Your task to perform on an android device: empty trash in google photos Image 0: 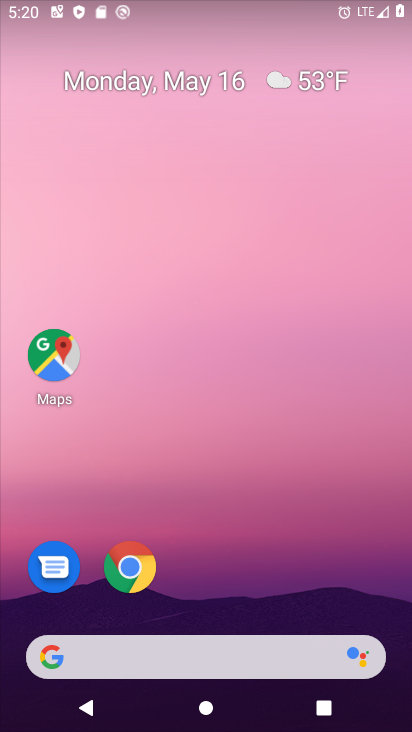
Step 0: drag from (199, 686) to (132, 162)
Your task to perform on an android device: empty trash in google photos Image 1: 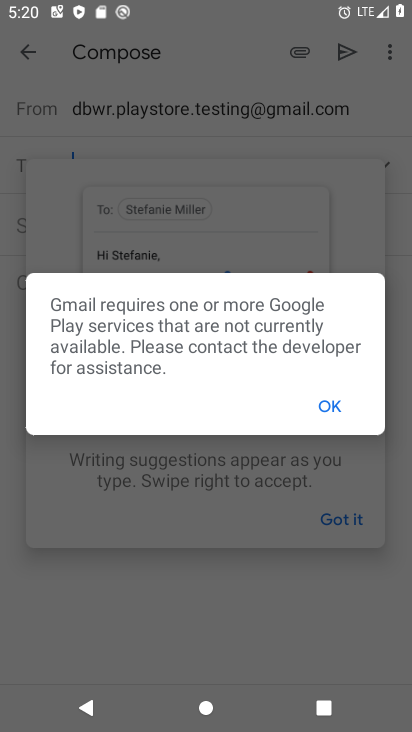
Step 1: press home button
Your task to perform on an android device: empty trash in google photos Image 2: 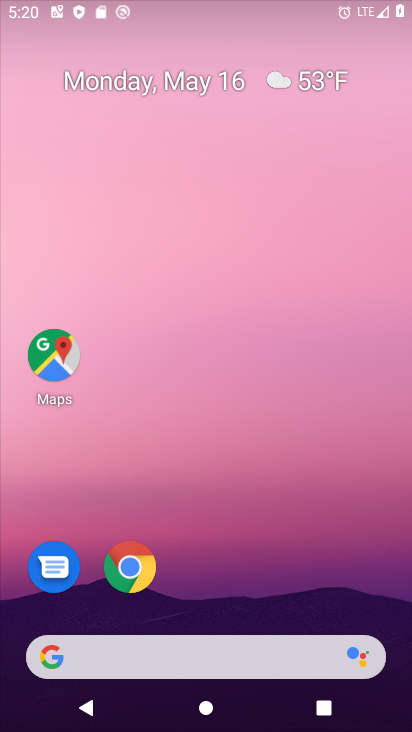
Step 2: drag from (312, 629) to (305, 89)
Your task to perform on an android device: empty trash in google photos Image 3: 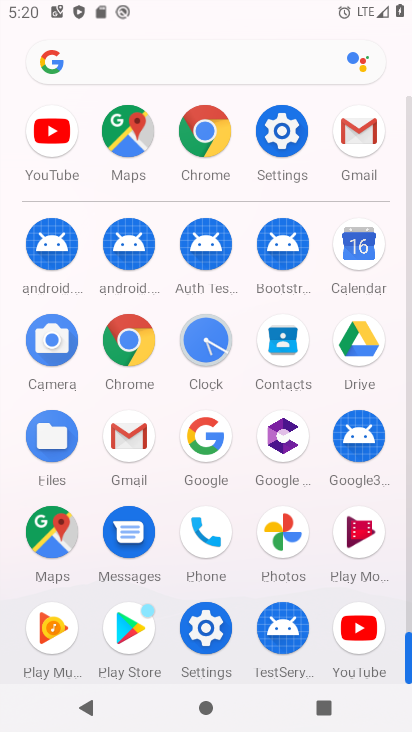
Step 3: click (280, 522)
Your task to perform on an android device: empty trash in google photos Image 4: 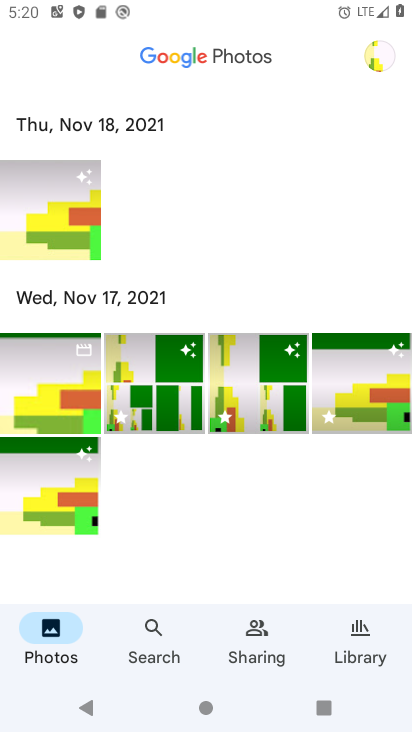
Step 4: click (382, 48)
Your task to perform on an android device: empty trash in google photos Image 5: 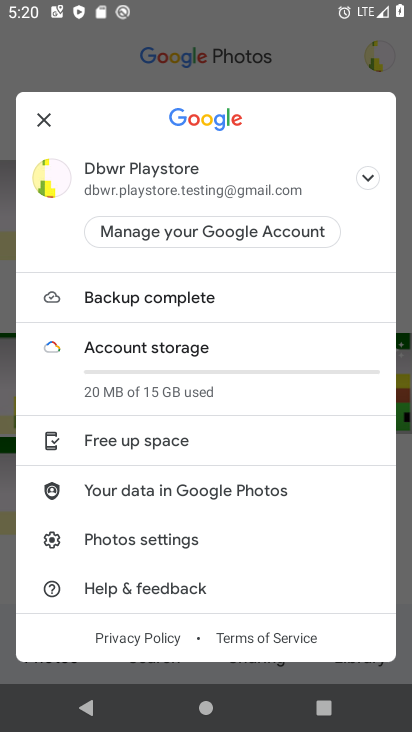
Step 5: click (315, 53)
Your task to perform on an android device: empty trash in google photos Image 6: 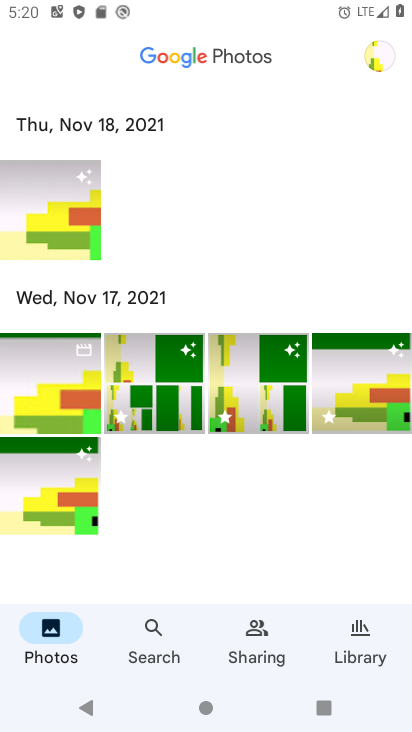
Step 6: click (272, 628)
Your task to perform on an android device: empty trash in google photos Image 7: 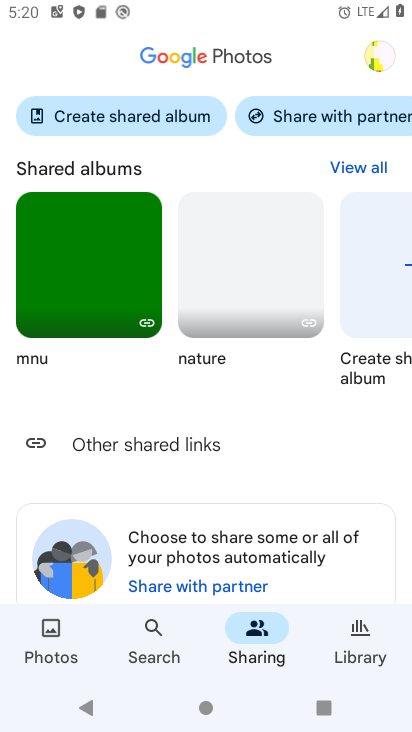
Step 7: click (350, 632)
Your task to perform on an android device: empty trash in google photos Image 8: 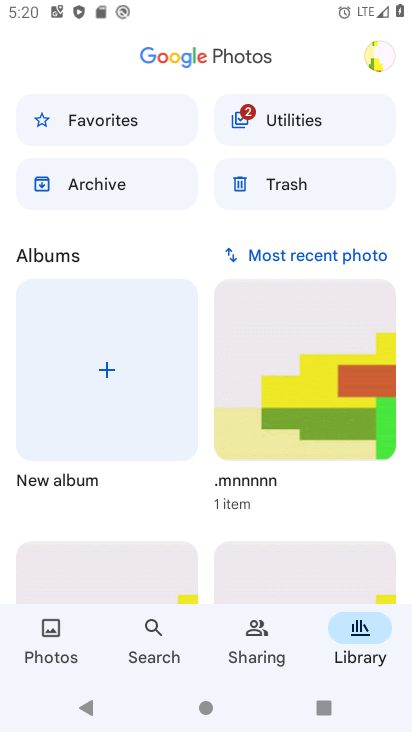
Step 8: click (277, 185)
Your task to perform on an android device: empty trash in google photos Image 9: 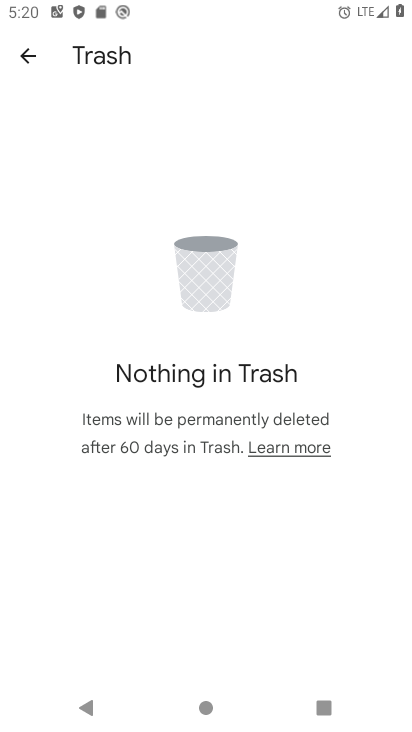
Step 9: task complete